Your task to perform on an android device: set the stopwatch Image 0: 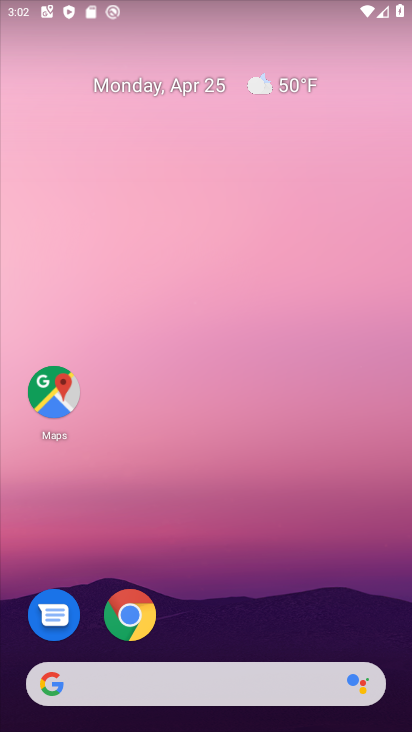
Step 0: drag from (241, 727) to (240, 104)
Your task to perform on an android device: set the stopwatch Image 1: 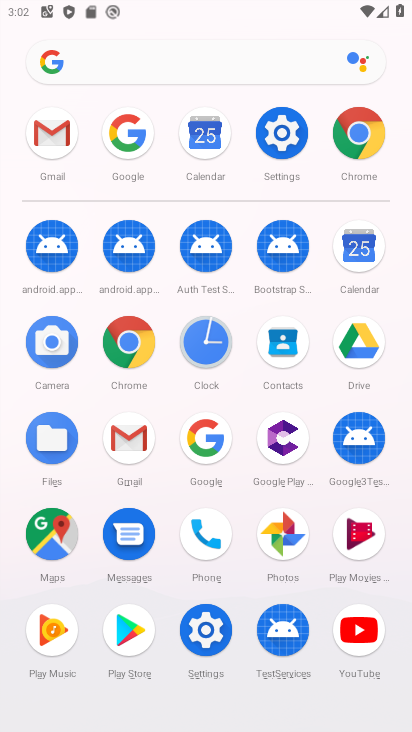
Step 1: click (205, 341)
Your task to perform on an android device: set the stopwatch Image 2: 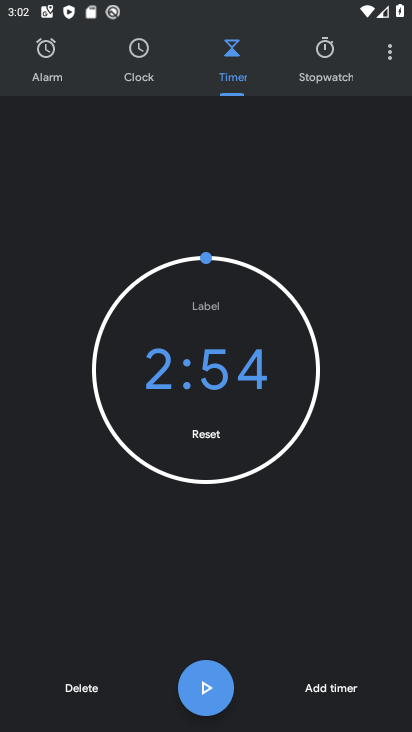
Step 2: click (326, 59)
Your task to perform on an android device: set the stopwatch Image 3: 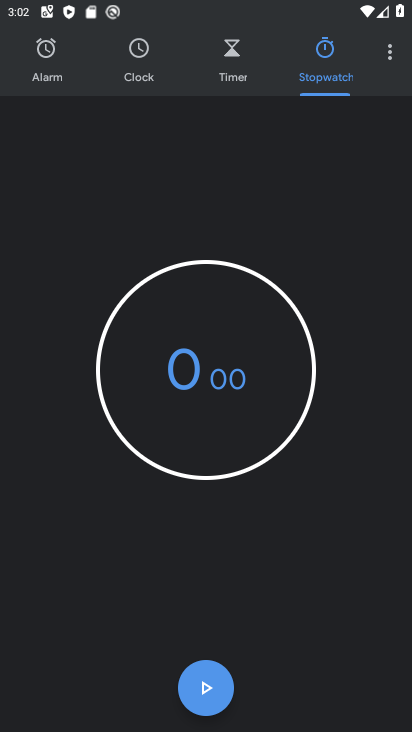
Step 3: click (190, 371)
Your task to perform on an android device: set the stopwatch Image 4: 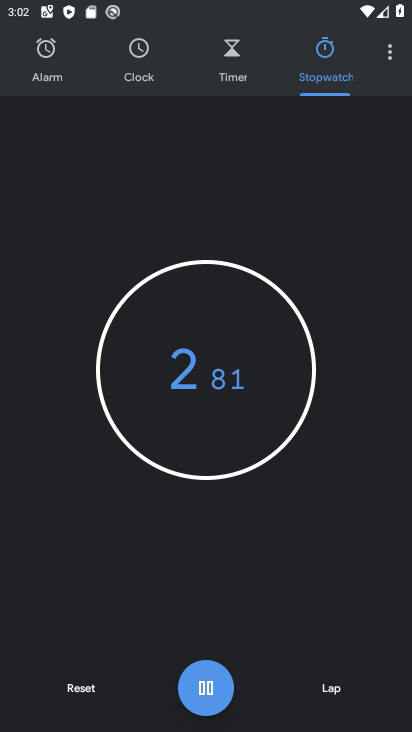
Step 4: type "789"
Your task to perform on an android device: set the stopwatch Image 5: 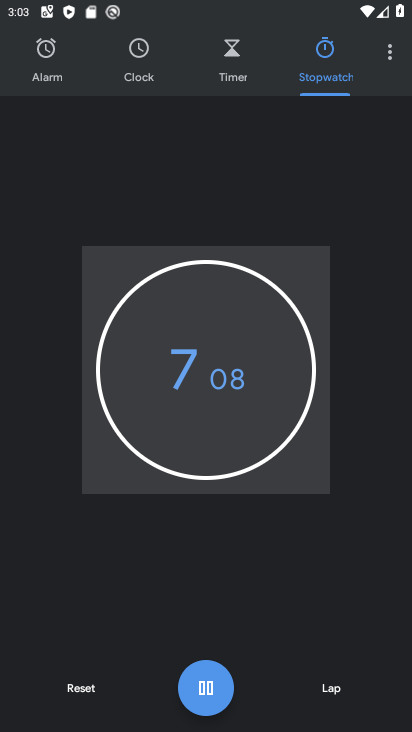
Step 5: task complete